Your task to perform on an android device: set the stopwatch Image 0: 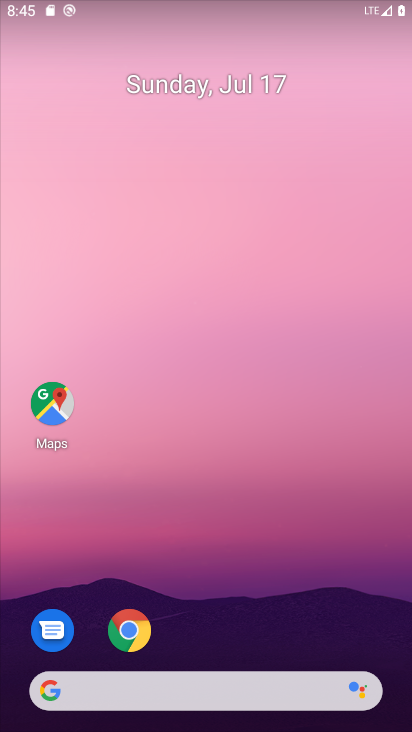
Step 0: drag from (200, 612) to (255, 1)
Your task to perform on an android device: set the stopwatch Image 1: 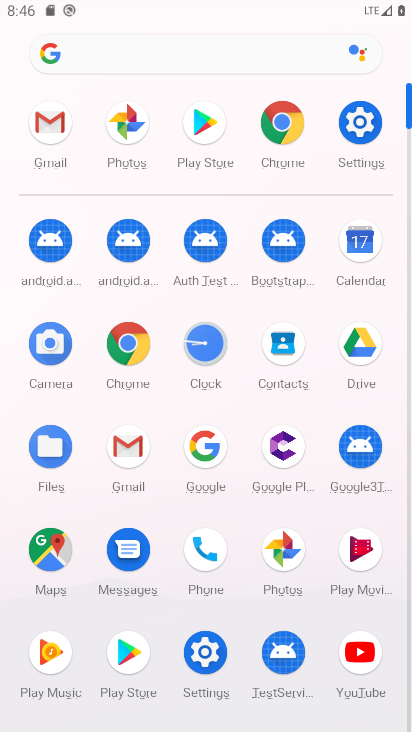
Step 1: click (214, 356)
Your task to perform on an android device: set the stopwatch Image 2: 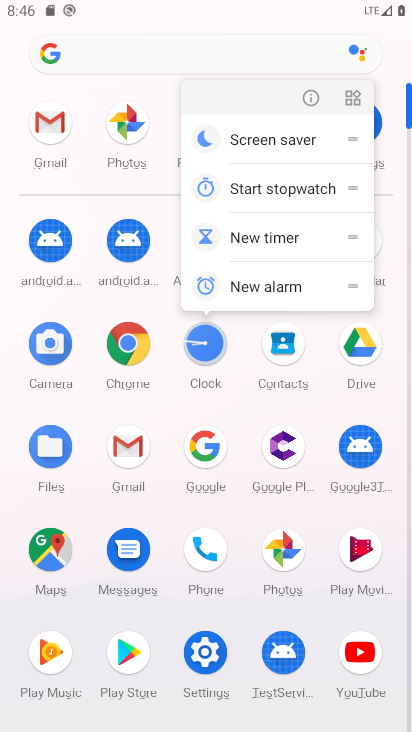
Step 2: click (208, 356)
Your task to perform on an android device: set the stopwatch Image 3: 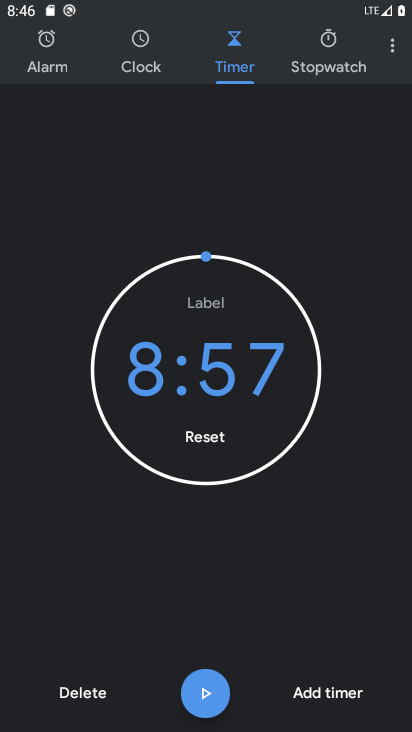
Step 3: click (333, 58)
Your task to perform on an android device: set the stopwatch Image 4: 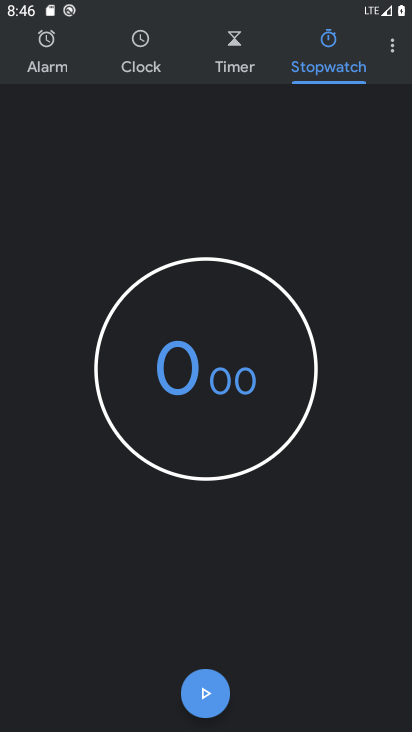
Step 4: click (193, 686)
Your task to perform on an android device: set the stopwatch Image 5: 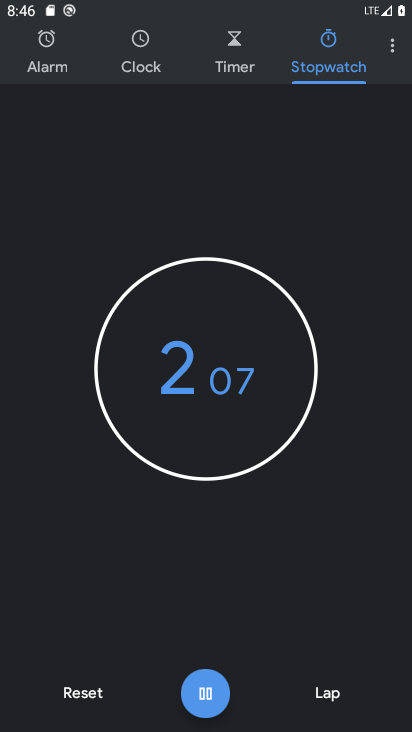
Step 5: task complete